Your task to perform on an android device: turn notification dots on Image 0: 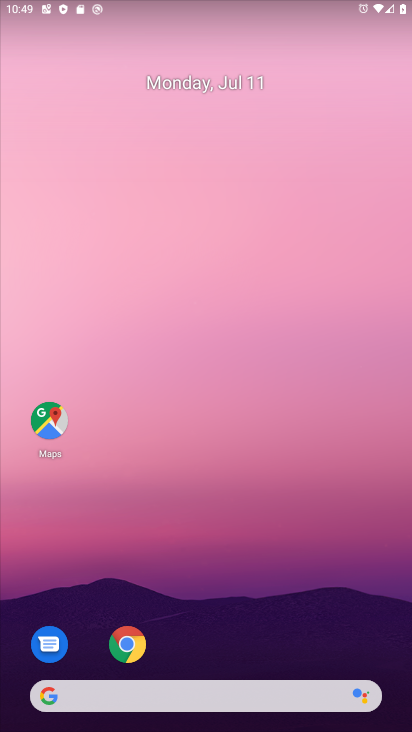
Step 0: press home button
Your task to perform on an android device: turn notification dots on Image 1: 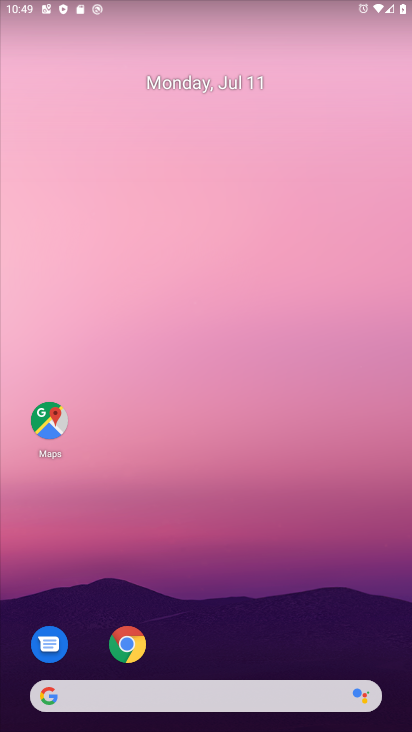
Step 1: drag from (204, 656) to (165, 6)
Your task to perform on an android device: turn notification dots on Image 2: 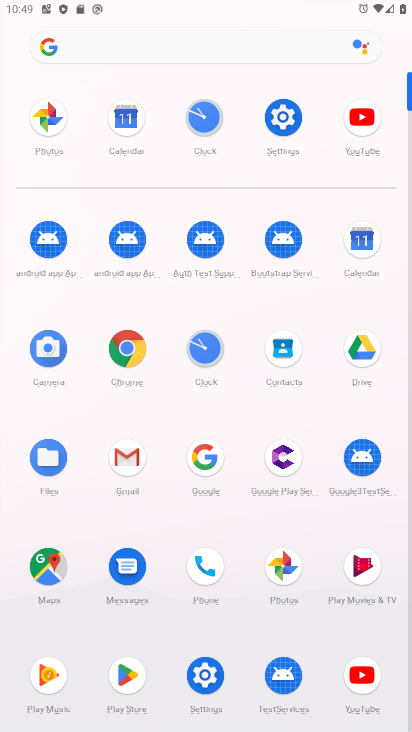
Step 2: click (278, 113)
Your task to perform on an android device: turn notification dots on Image 3: 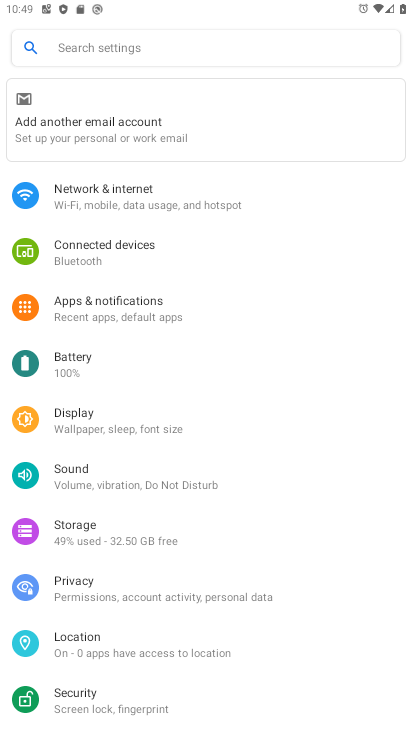
Step 3: click (120, 305)
Your task to perform on an android device: turn notification dots on Image 4: 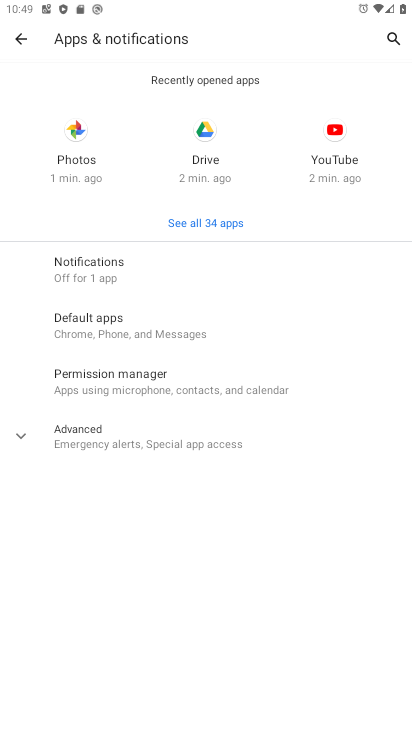
Step 4: click (132, 265)
Your task to perform on an android device: turn notification dots on Image 5: 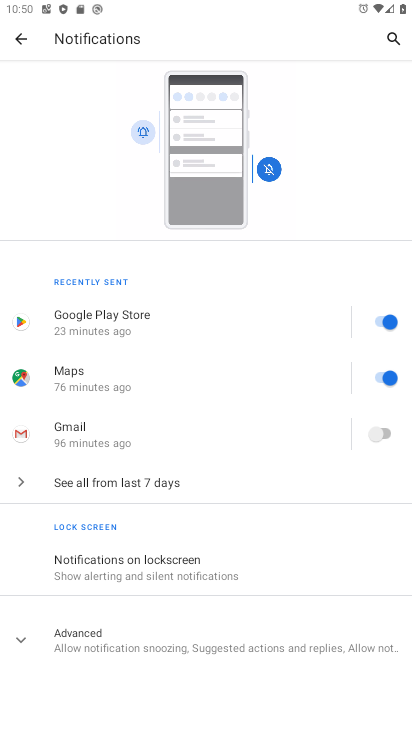
Step 5: click (87, 638)
Your task to perform on an android device: turn notification dots on Image 6: 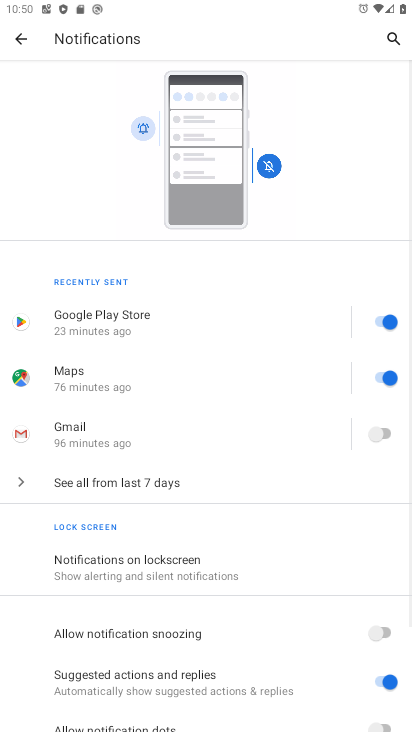
Step 6: drag from (240, 663) to (250, 264)
Your task to perform on an android device: turn notification dots on Image 7: 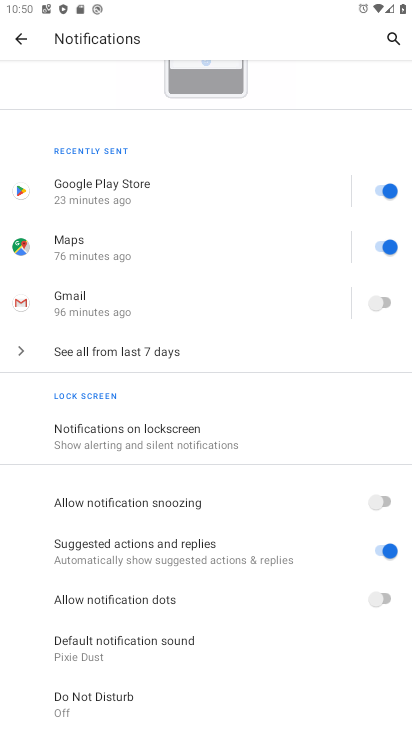
Step 7: click (387, 595)
Your task to perform on an android device: turn notification dots on Image 8: 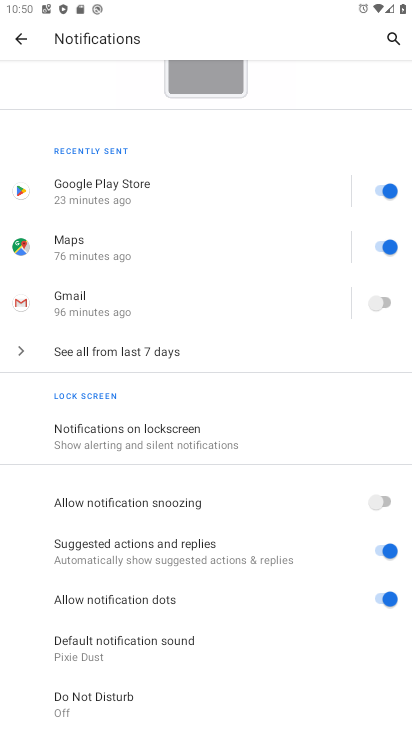
Step 8: task complete